Your task to perform on an android device: What is the news today? Image 0: 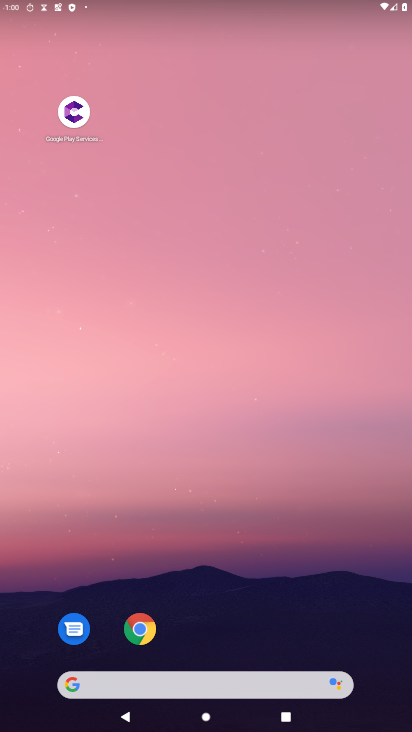
Step 0: drag from (90, 609) to (248, 1)
Your task to perform on an android device: What is the news today? Image 1: 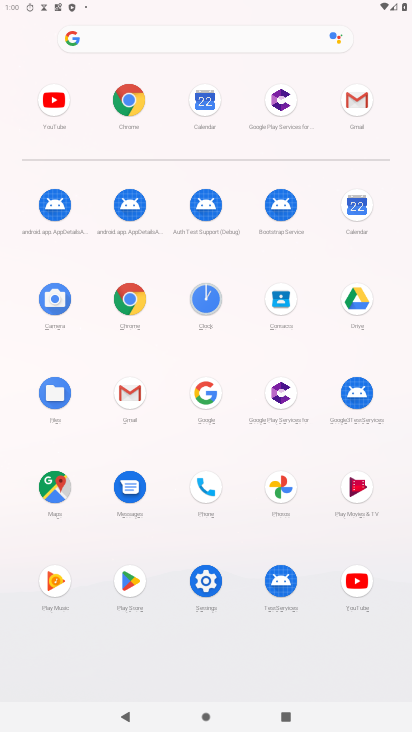
Step 1: click (141, 297)
Your task to perform on an android device: What is the news today? Image 2: 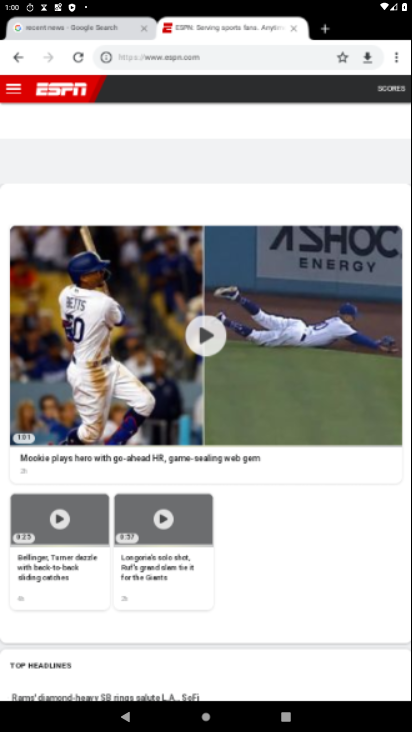
Step 2: click (178, 58)
Your task to perform on an android device: What is the news today? Image 3: 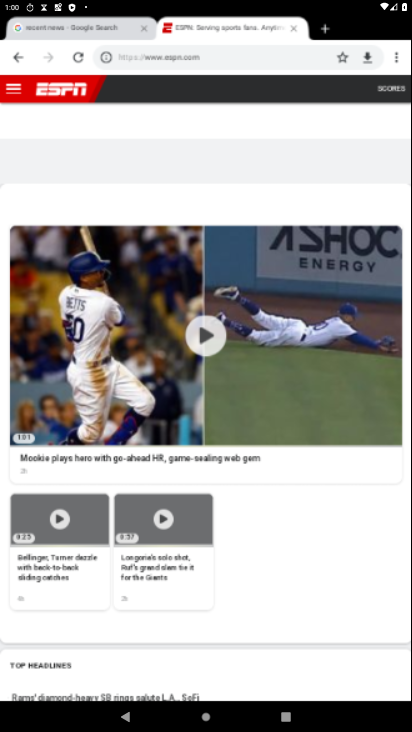
Step 3: click (178, 58)
Your task to perform on an android device: What is the news today? Image 4: 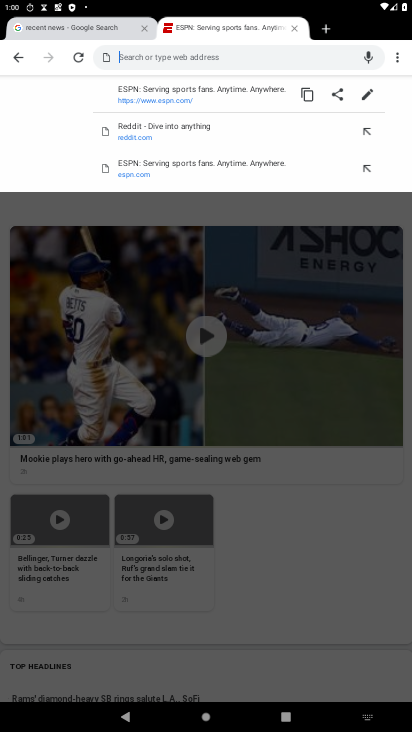
Step 4: type "news today"
Your task to perform on an android device: What is the news today? Image 5: 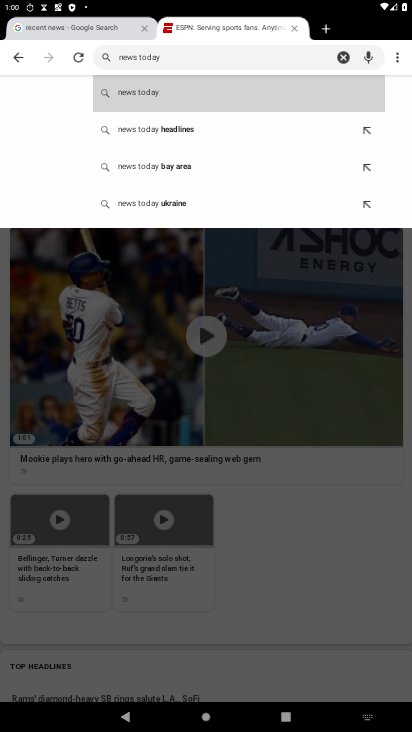
Step 5: click (176, 100)
Your task to perform on an android device: What is the news today? Image 6: 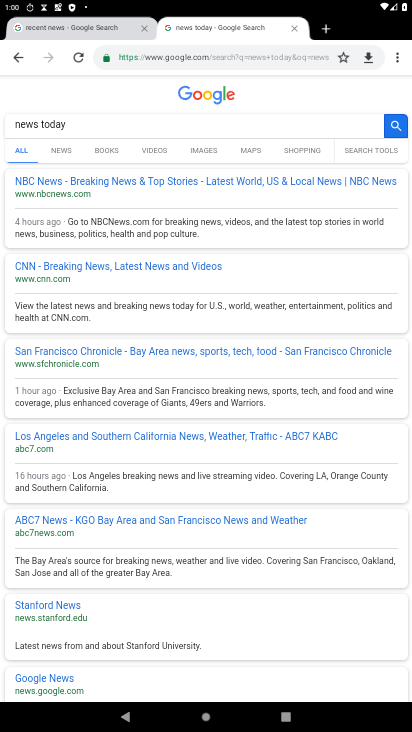
Step 6: task complete